Your task to perform on an android device: Go to display settings Image 0: 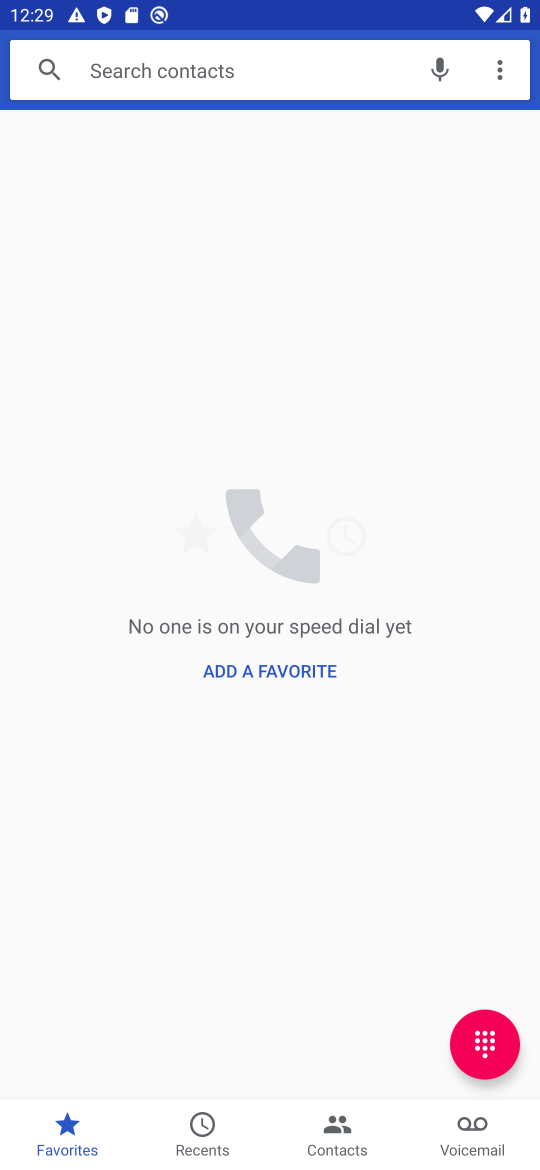
Step 0: press home button
Your task to perform on an android device: Go to display settings Image 1: 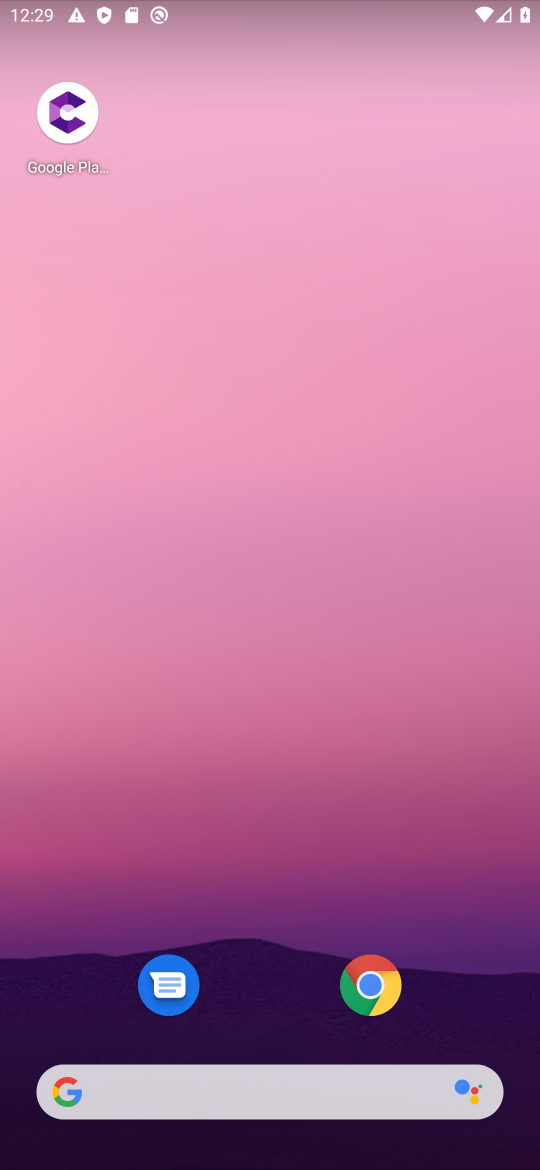
Step 1: drag from (261, 919) to (325, 29)
Your task to perform on an android device: Go to display settings Image 2: 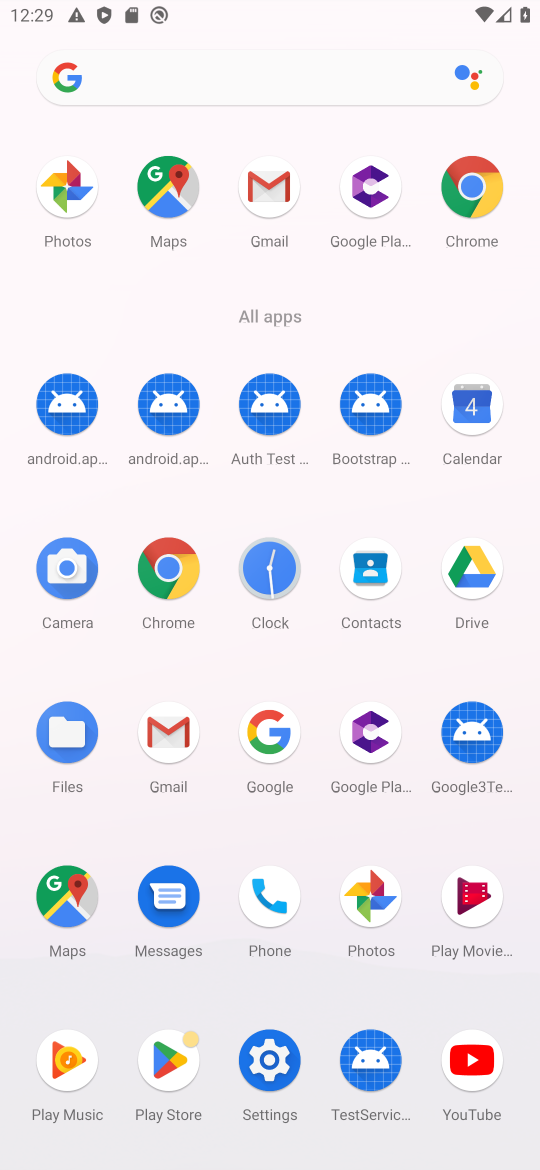
Step 2: click (265, 1050)
Your task to perform on an android device: Go to display settings Image 3: 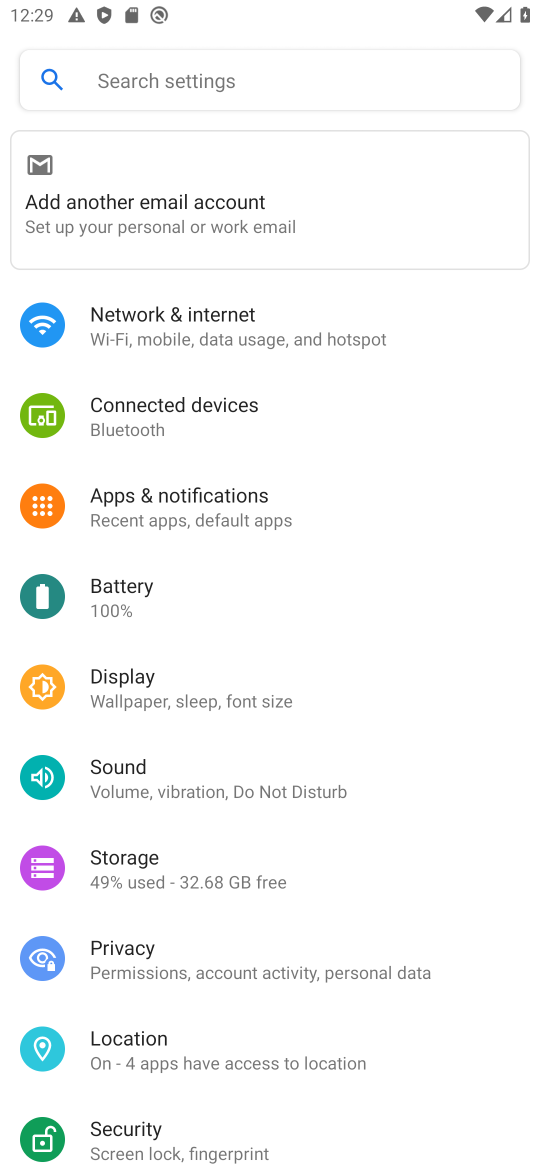
Step 3: click (118, 674)
Your task to perform on an android device: Go to display settings Image 4: 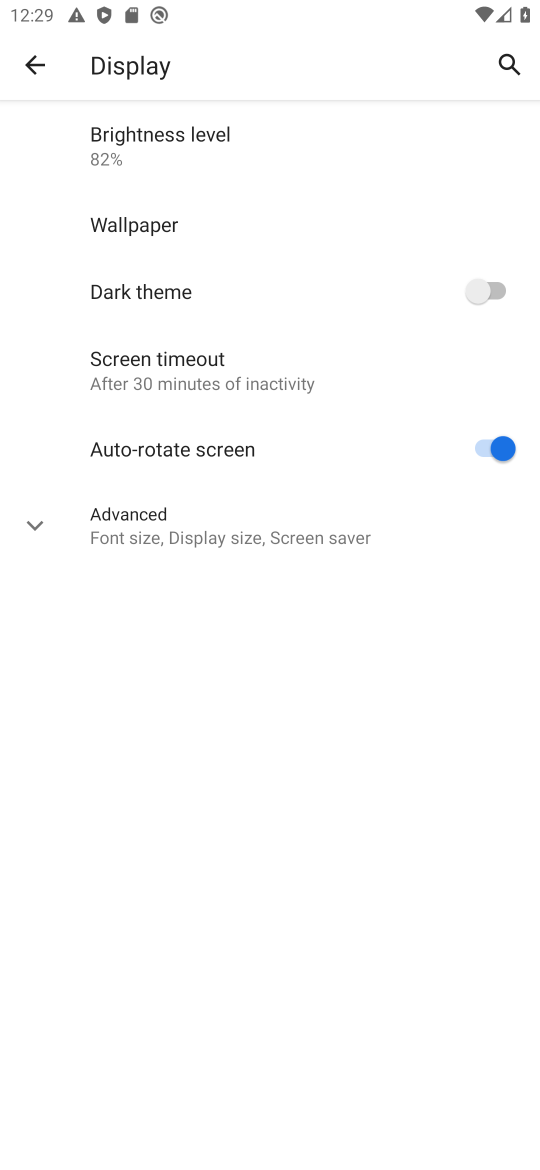
Step 4: task complete